Your task to perform on an android device: delete browsing data in the chrome app Image 0: 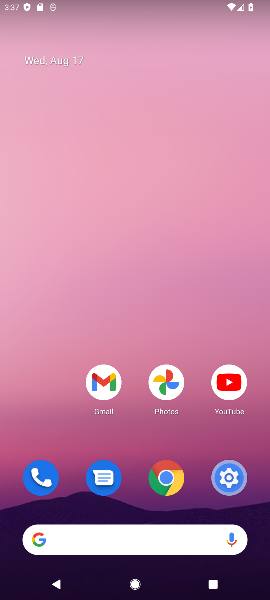
Step 0: drag from (136, 447) to (160, 54)
Your task to perform on an android device: delete browsing data in the chrome app Image 1: 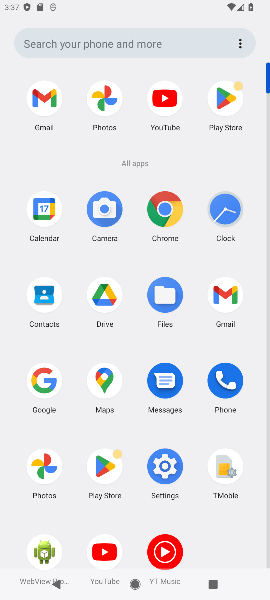
Step 1: click (169, 208)
Your task to perform on an android device: delete browsing data in the chrome app Image 2: 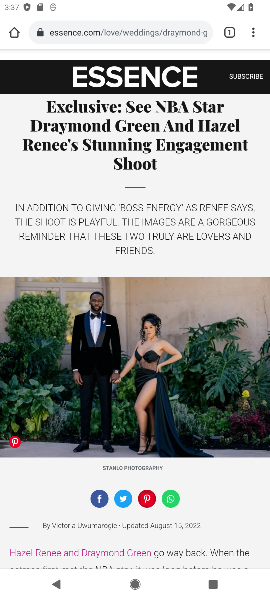
Step 2: drag from (255, 30) to (153, 126)
Your task to perform on an android device: delete browsing data in the chrome app Image 3: 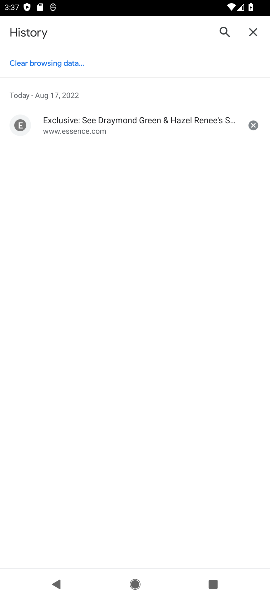
Step 3: click (51, 61)
Your task to perform on an android device: delete browsing data in the chrome app Image 4: 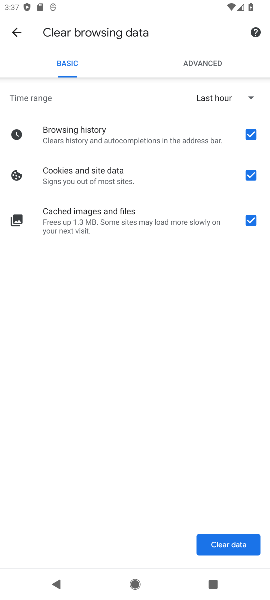
Step 4: click (219, 92)
Your task to perform on an android device: delete browsing data in the chrome app Image 5: 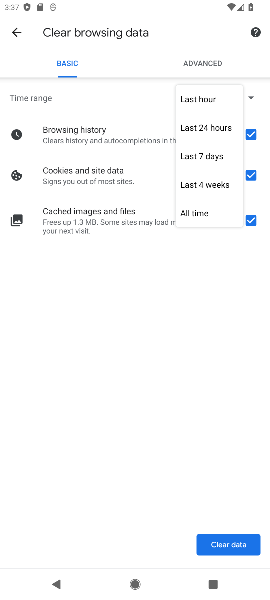
Step 5: click (200, 210)
Your task to perform on an android device: delete browsing data in the chrome app Image 6: 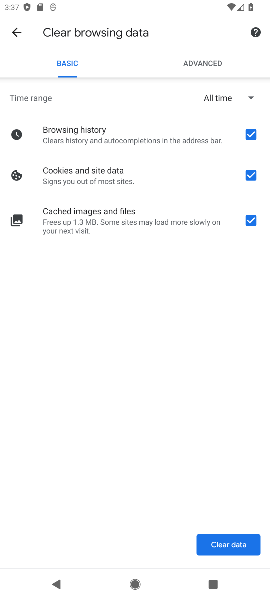
Step 6: click (210, 536)
Your task to perform on an android device: delete browsing data in the chrome app Image 7: 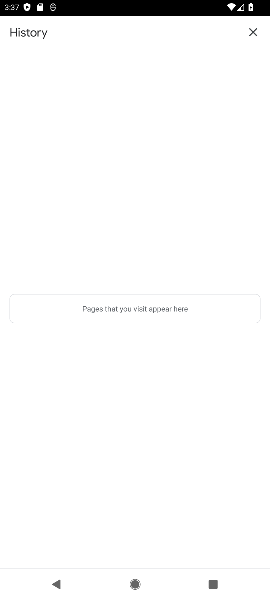
Step 7: task complete